Your task to perform on an android device: toggle data saver in the chrome app Image 0: 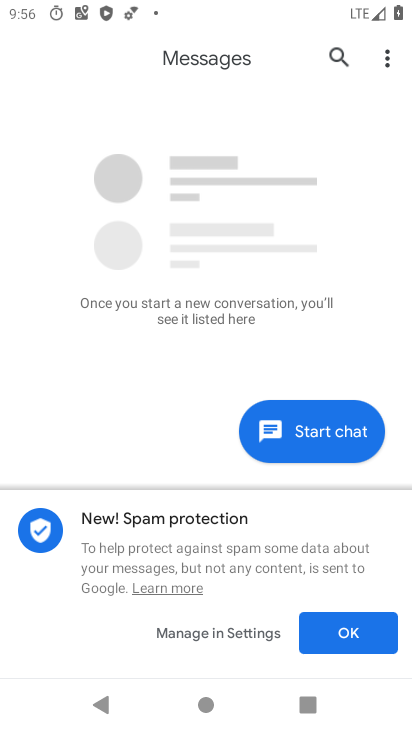
Step 0: press home button
Your task to perform on an android device: toggle data saver in the chrome app Image 1: 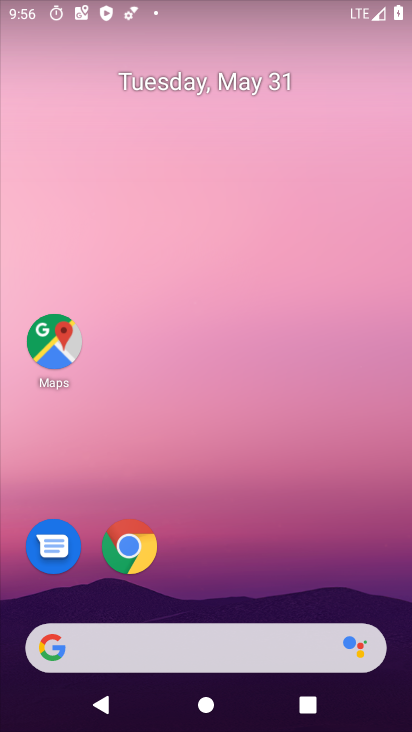
Step 1: click (137, 553)
Your task to perform on an android device: toggle data saver in the chrome app Image 2: 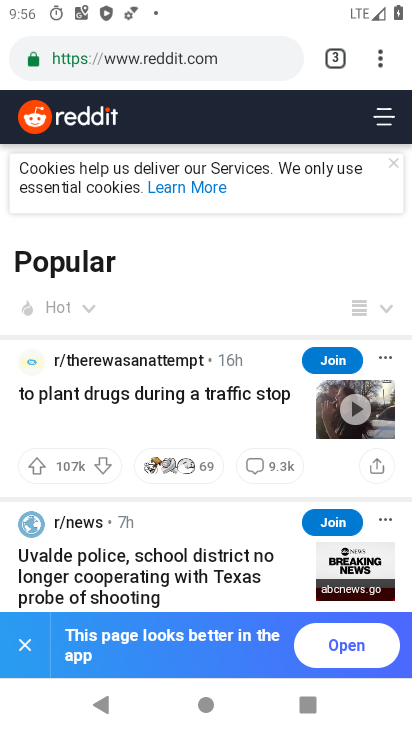
Step 2: click (378, 59)
Your task to perform on an android device: toggle data saver in the chrome app Image 3: 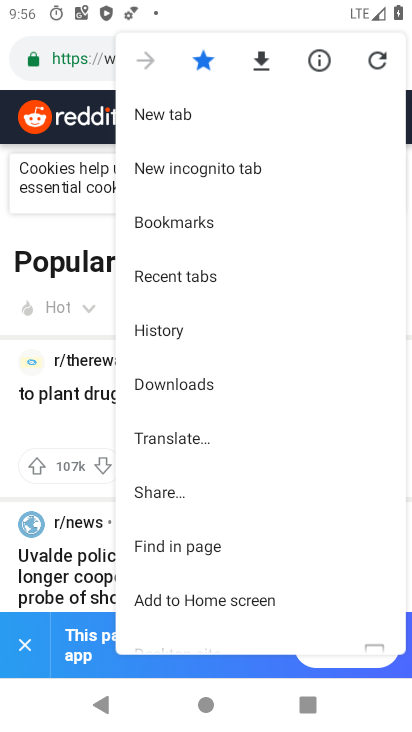
Step 3: drag from (214, 610) to (164, 180)
Your task to perform on an android device: toggle data saver in the chrome app Image 4: 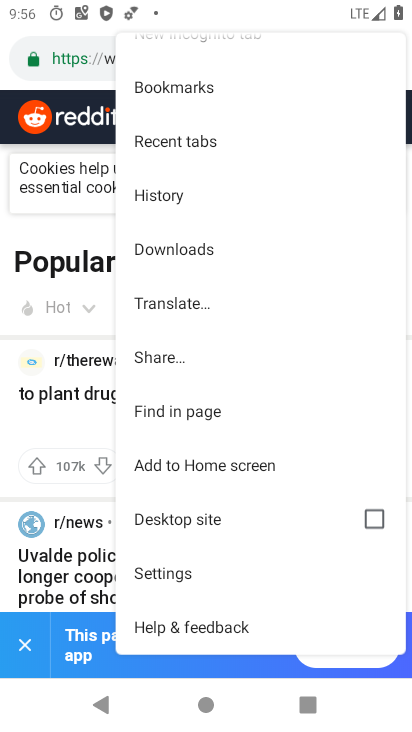
Step 4: click (162, 563)
Your task to perform on an android device: toggle data saver in the chrome app Image 5: 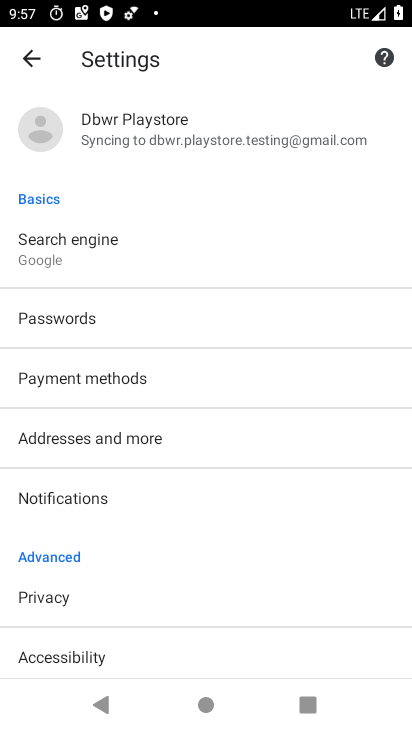
Step 5: drag from (110, 638) to (263, 58)
Your task to perform on an android device: toggle data saver in the chrome app Image 6: 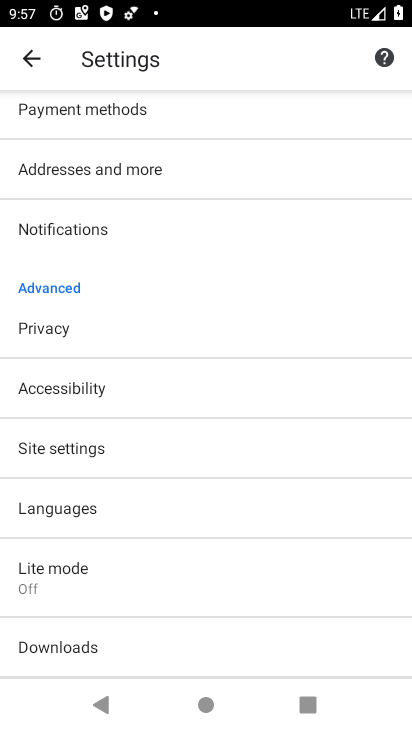
Step 6: click (64, 566)
Your task to perform on an android device: toggle data saver in the chrome app Image 7: 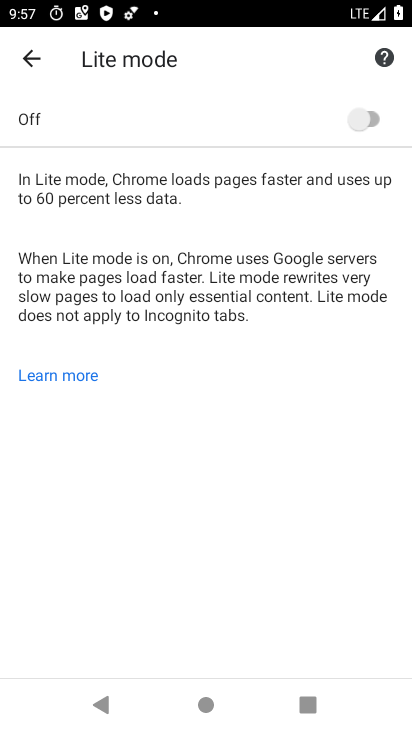
Step 7: click (372, 117)
Your task to perform on an android device: toggle data saver in the chrome app Image 8: 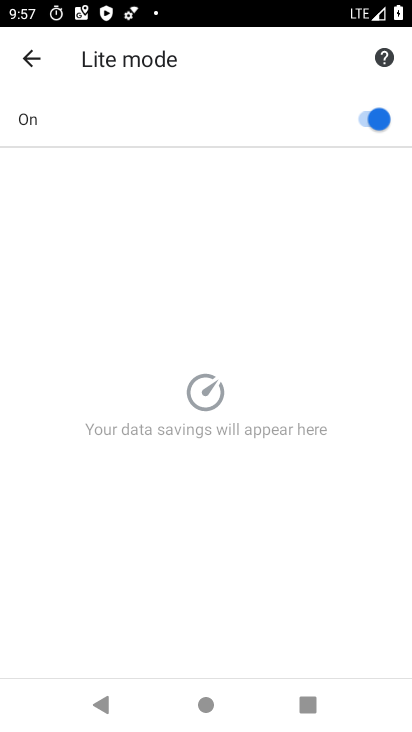
Step 8: task complete